Your task to perform on an android device: View the shopping cart on walmart. Search for "beats solo 3" on walmart, select the first entry, and add it to the cart. Image 0: 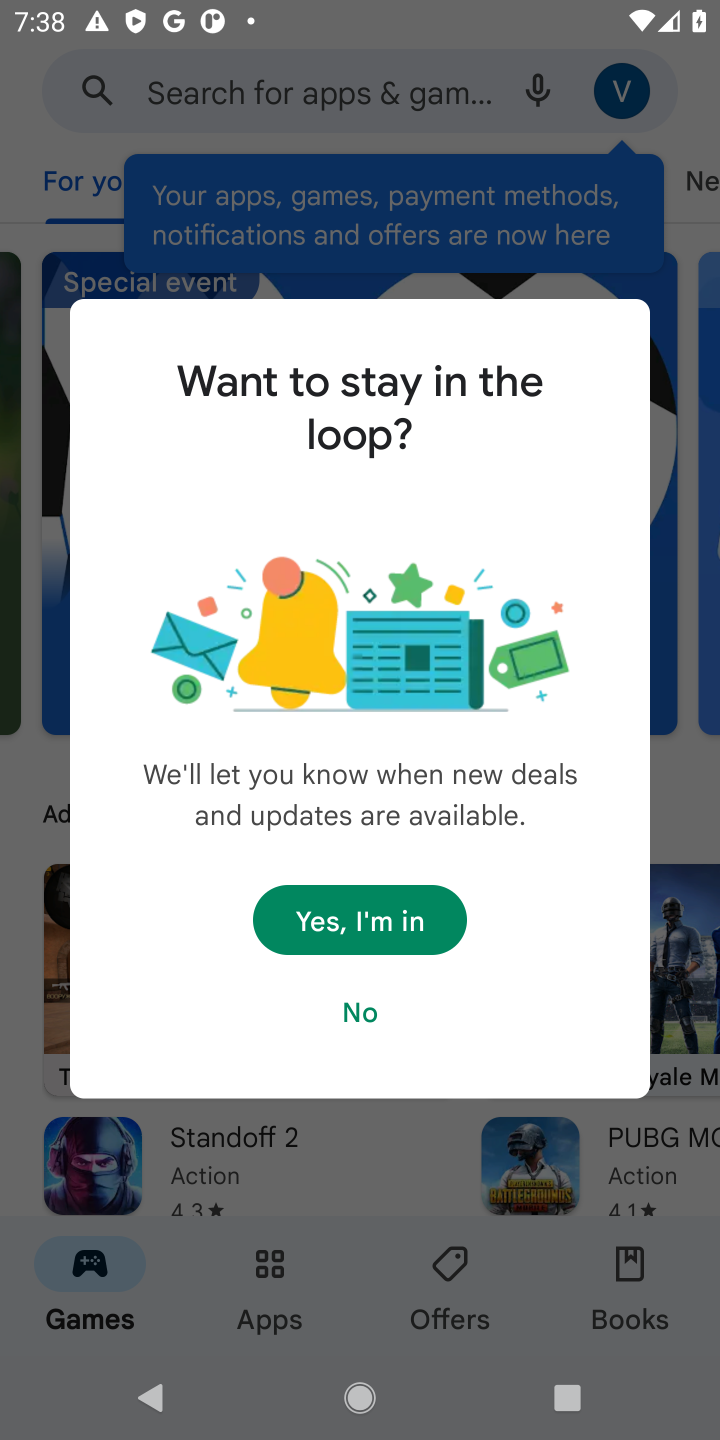
Step 0: press home button
Your task to perform on an android device: View the shopping cart on walmart. Search for "beats solo 3" on walmart, select the first entry, and add it to the cart. Image 1: 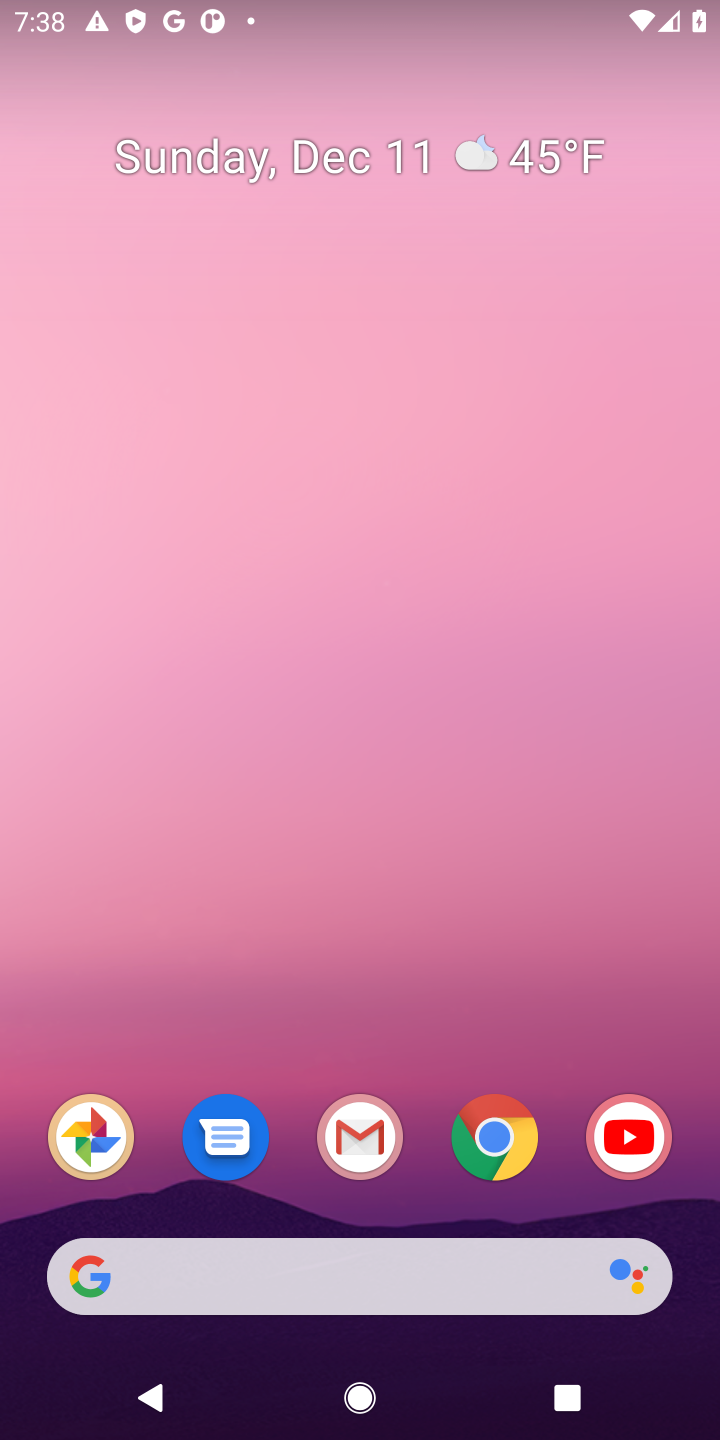
Step 1: click (488, 1136)
Your task to perform on an android device: View the shopping cart on walmart. Search for "beats solo 3" on walmart, select the first entry, and add it to the cart. Image 2: 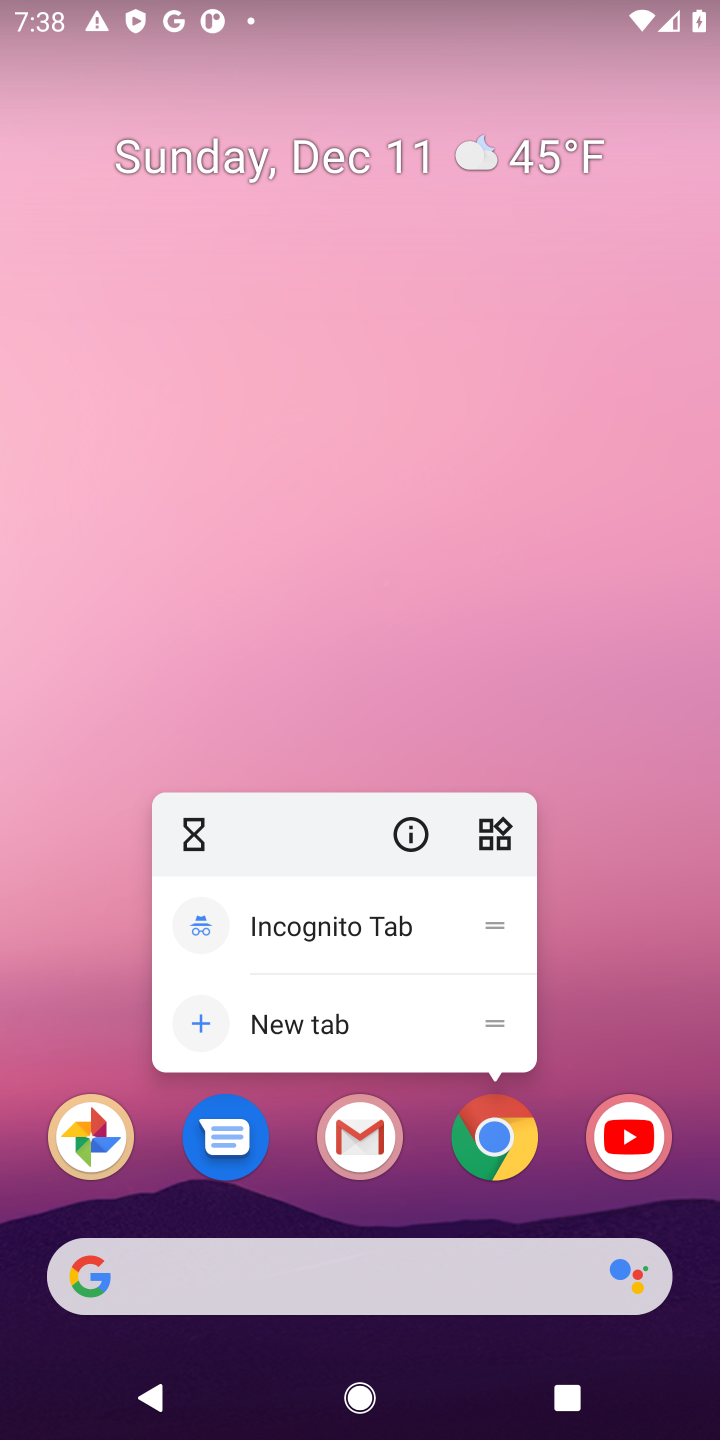
Step 2: click (488, 1136)
Your task to perform on an android device: View the shopping cart on walmart. Search for "beats solo 3" on walmart, select the first entry, and add it to the cart. Image 3: 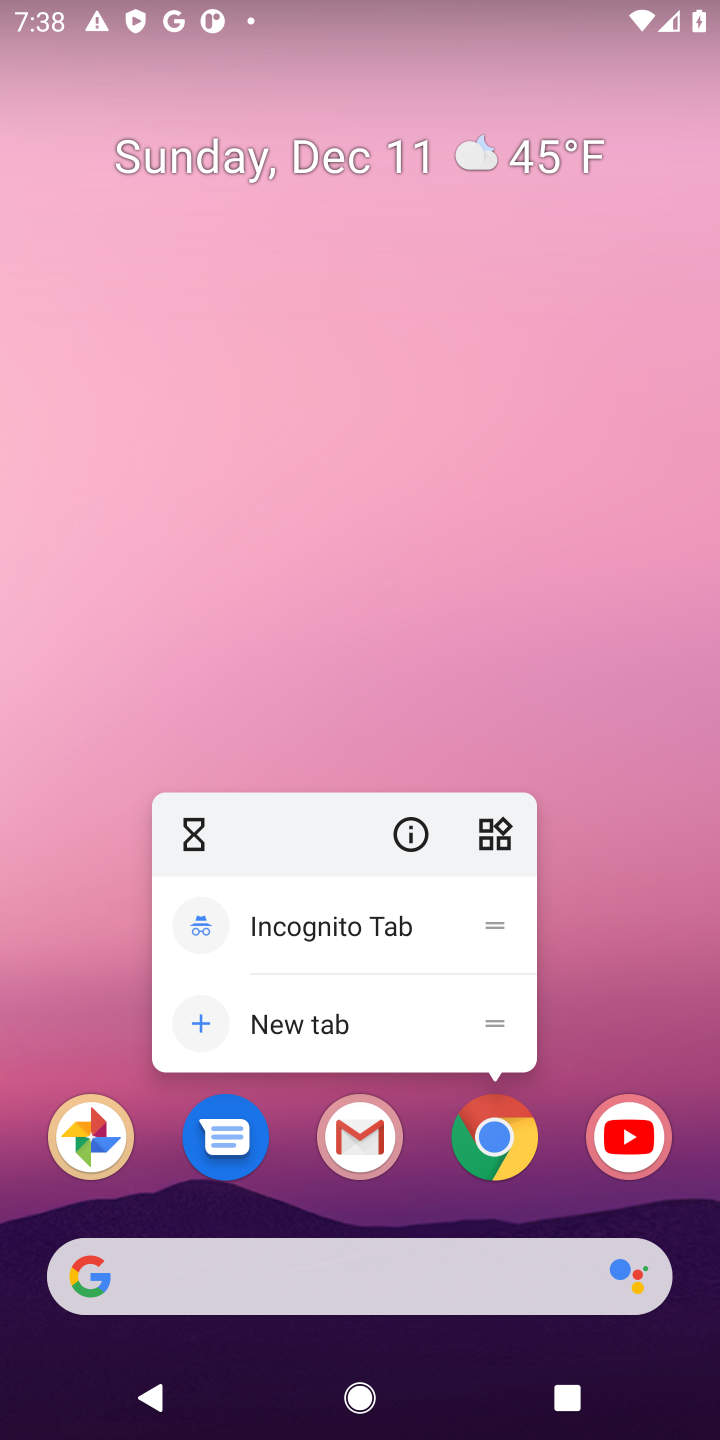
Step 3: click (501, 1137)
Your task to perform on an android device: View the shopping cart on walmart. Search for "beats solo 3" on walmart, select the first entry, and add it to the cart. Image 4: 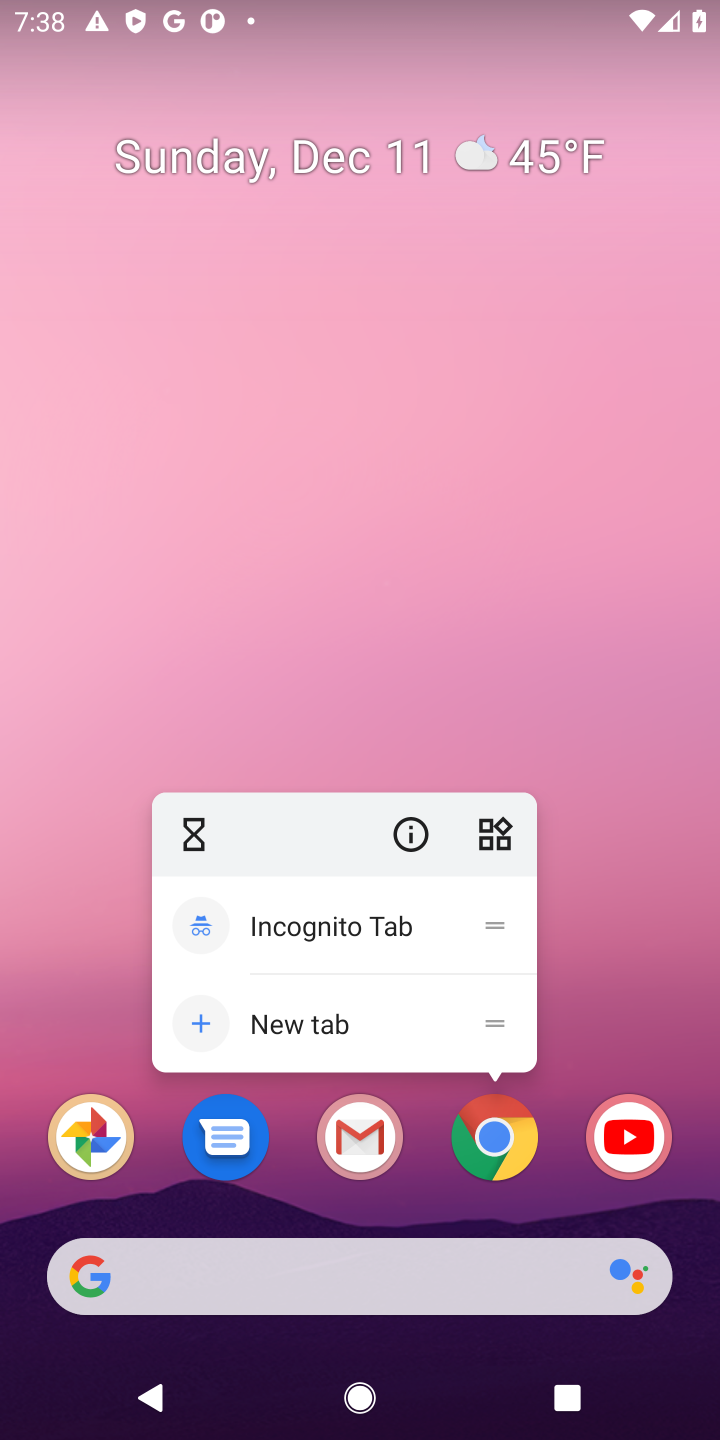
Step 4: click (501, 1137)
Your task to perform on an android device: View the shopping cart on walmart. Search for "beats solo 3" on walmart, select the first entry, and add it to the cart. Image 5: 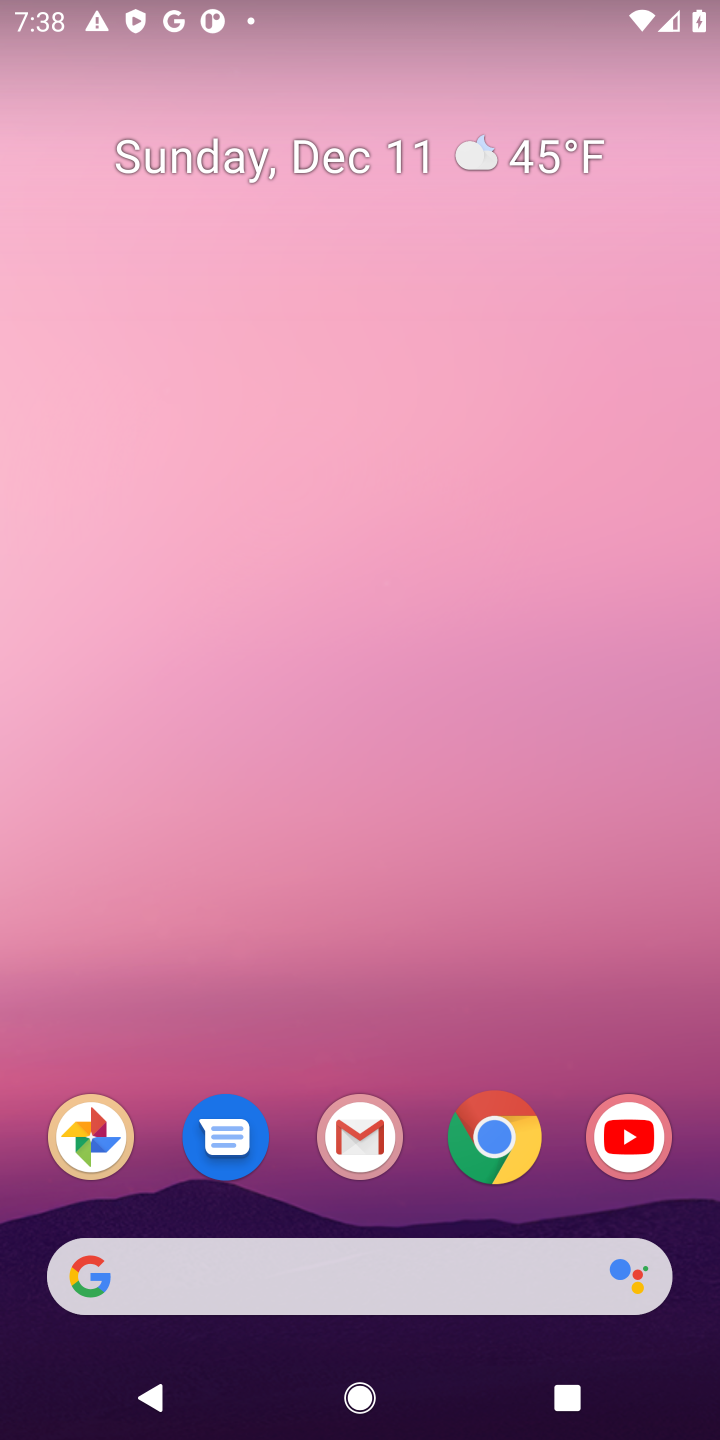
Step 5: click (501, 1137)
Your task to perform on an android device: View the shopping cart on walmart. Search for "beats solo 3" on walmart, select the first entry, and add it to the cart. Image 6: 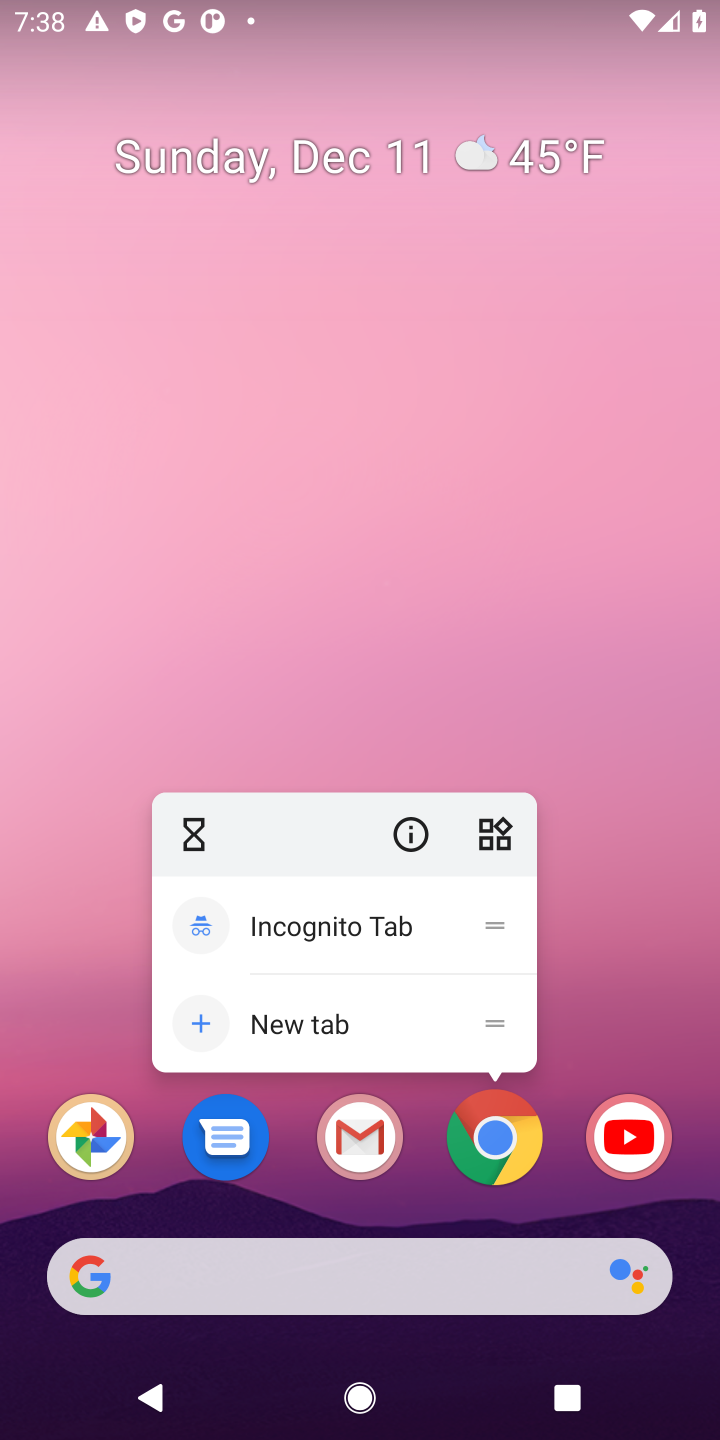
Step 6: click (501, 1137)
Your task to perform on an android device: View the shopping cart on walmart. Search for "beats solo 3" on walmart, select the first entry, and add it to the cart. Image 7: 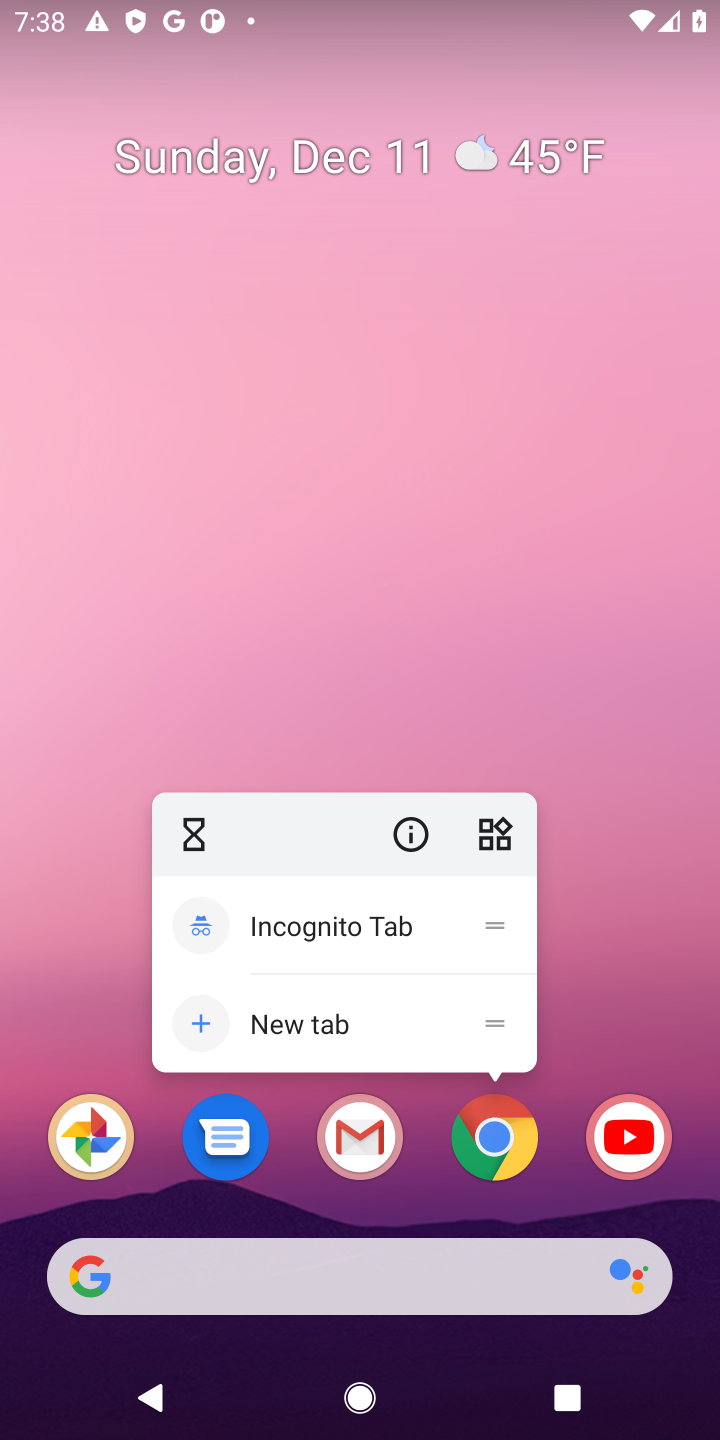
Step 7: click (370, 1038)
Your task to perform on an android device: View the shopping cart on walmart. Search for "beats solo 3" on walmart, select the first entry, and add it to the cart. Image 8: 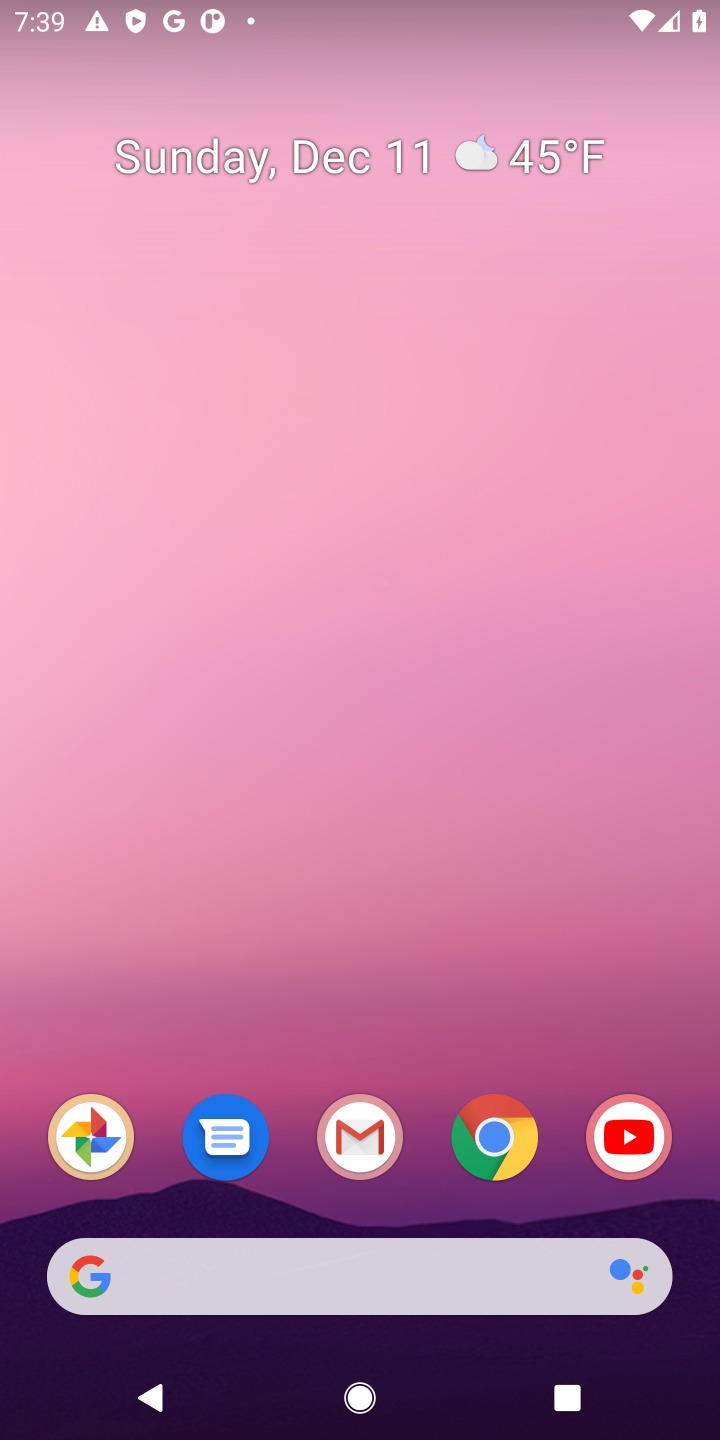
Step 8: click (475, 1108)
Your task to perform on an android device: View the shopping cart on walmart. Search for "beats solo 3" on walmart, select the first entry, and add it to the cart. Image 9: 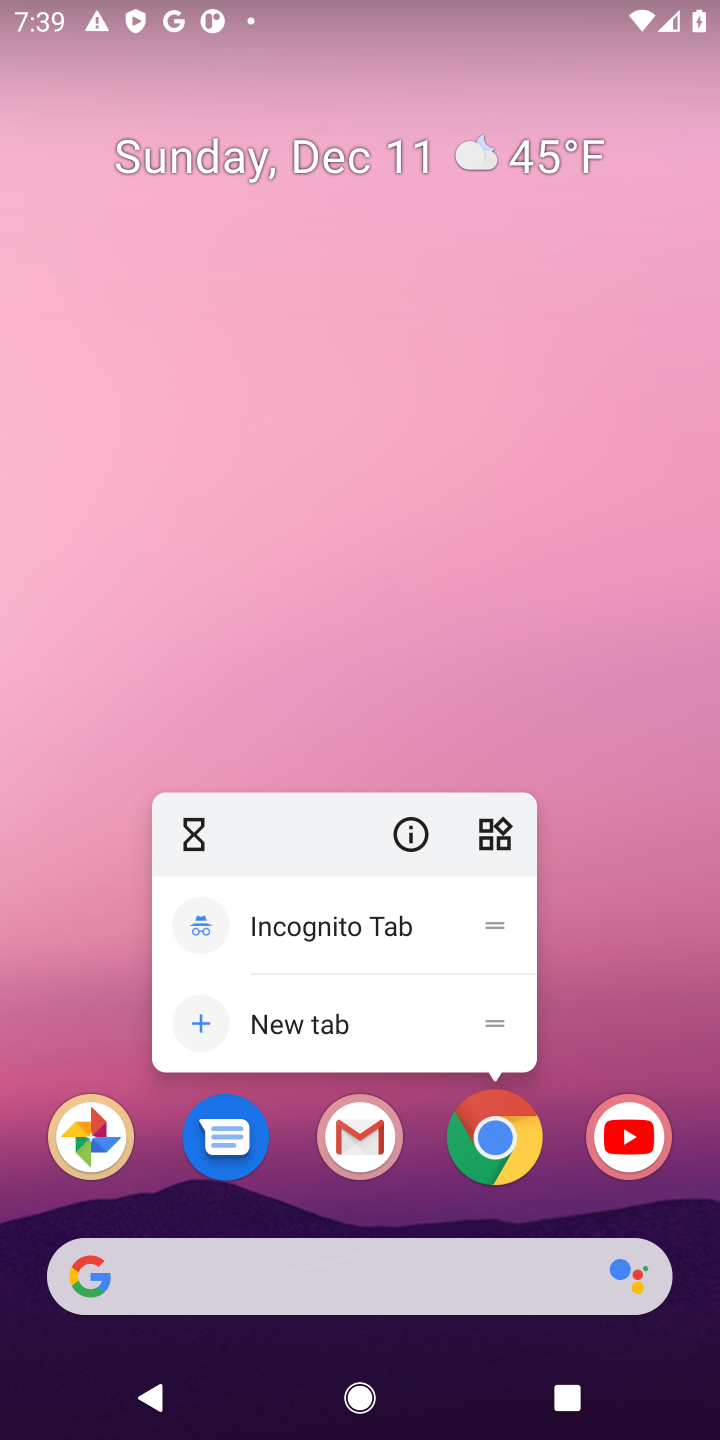
Step 9: click (313, 1017)
Your task to perform on an android device: View the shopping cart on walmart. Search for "beats solo 3" on walmart, select the first entry, and add it to the cart. Image 10: 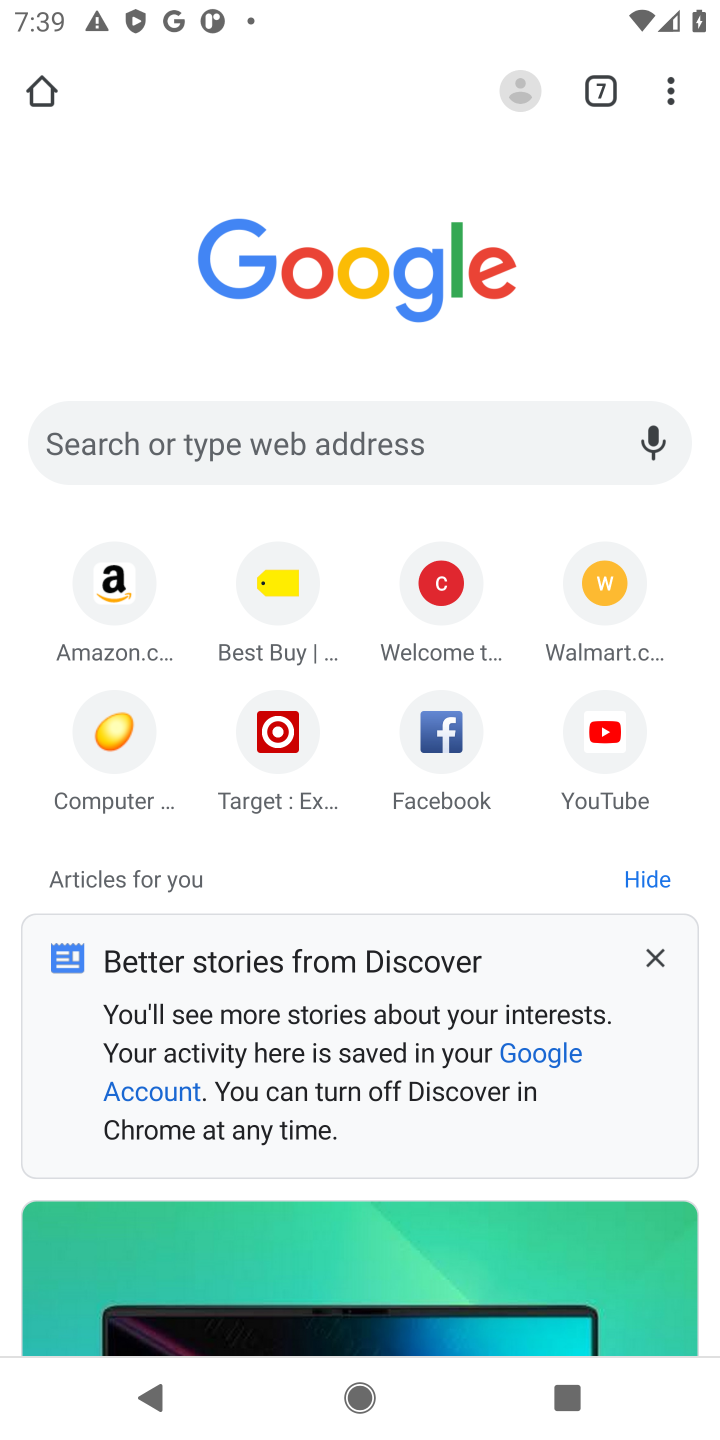
Step 10: click (502, 1107)
Your task to perform on an android device: View the shopping cart on walmart. Search for "beats solo 3" on walmart, select the first entry, and add it to the cart. Image 11: 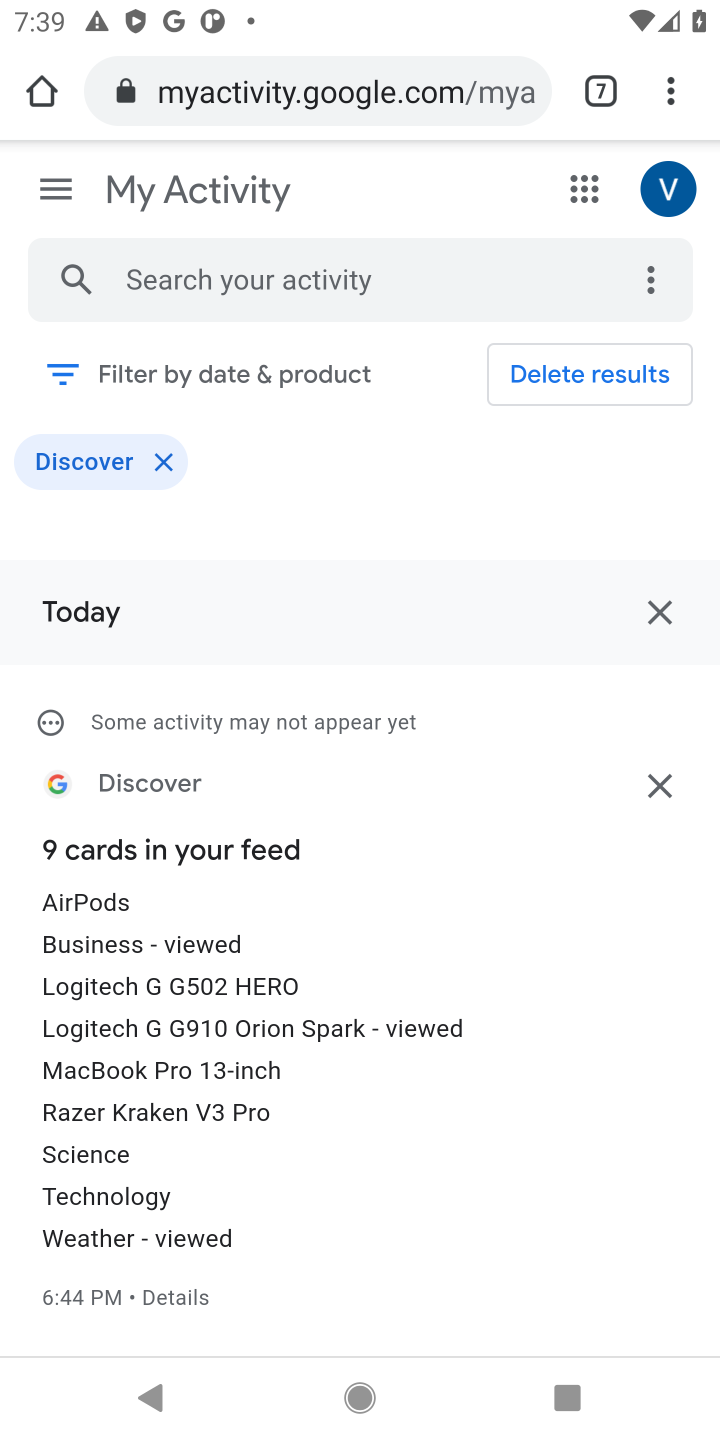
Step 11: press back button
Your task to perform on an android device: View the shopping cart on walmart. Search for "beats solo 3" on walmart, select the first entry, and add it to the cart. Image 12: 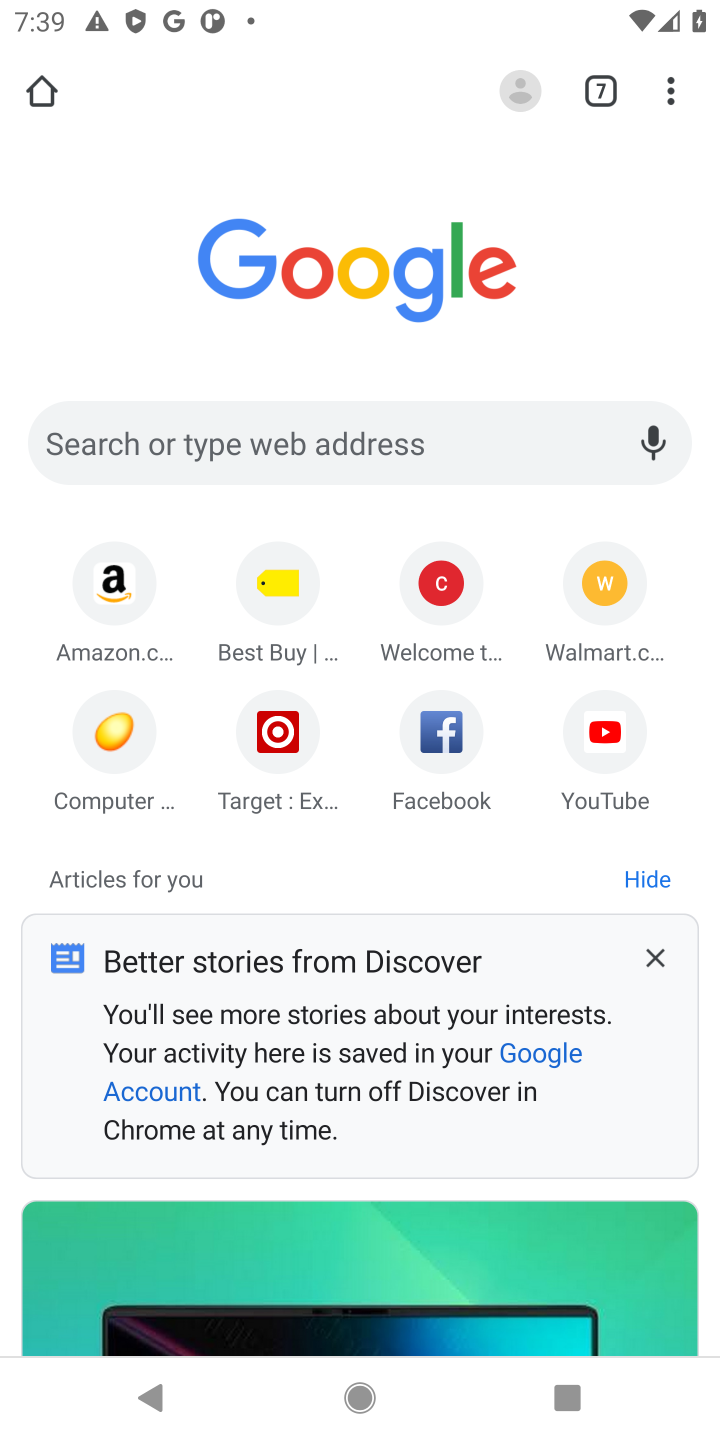
Step 12: click (617, 597)
Your task to perform on an android device: View the shopping cart on walmart. Search for "beats solo 3" on walmart, select the first entry, and add it to the cart. Image 13: 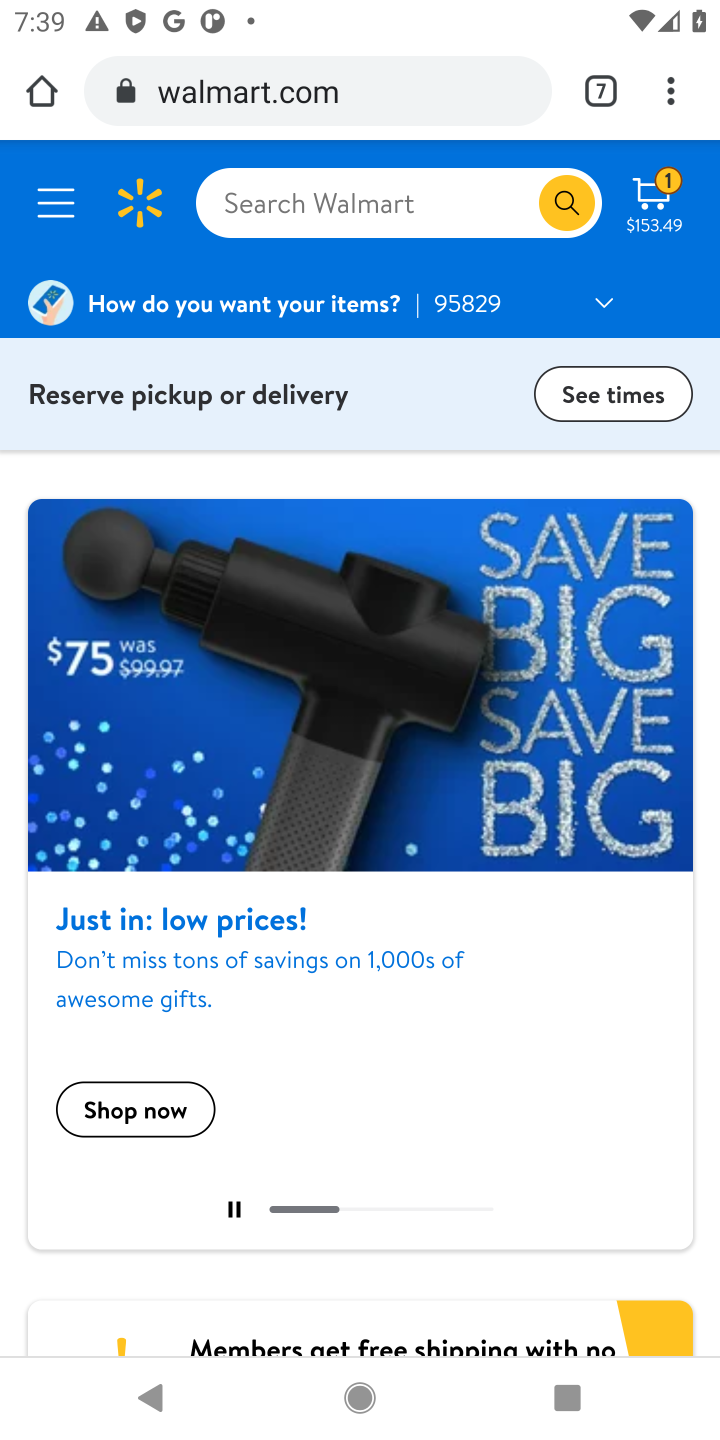
Step 13: click (668, 192)
Your task to perform on an android device: View the shopping cart on walmart. Search for "beats solo 3" on walmart, select the first entry, and add it to the cart. Image 14: 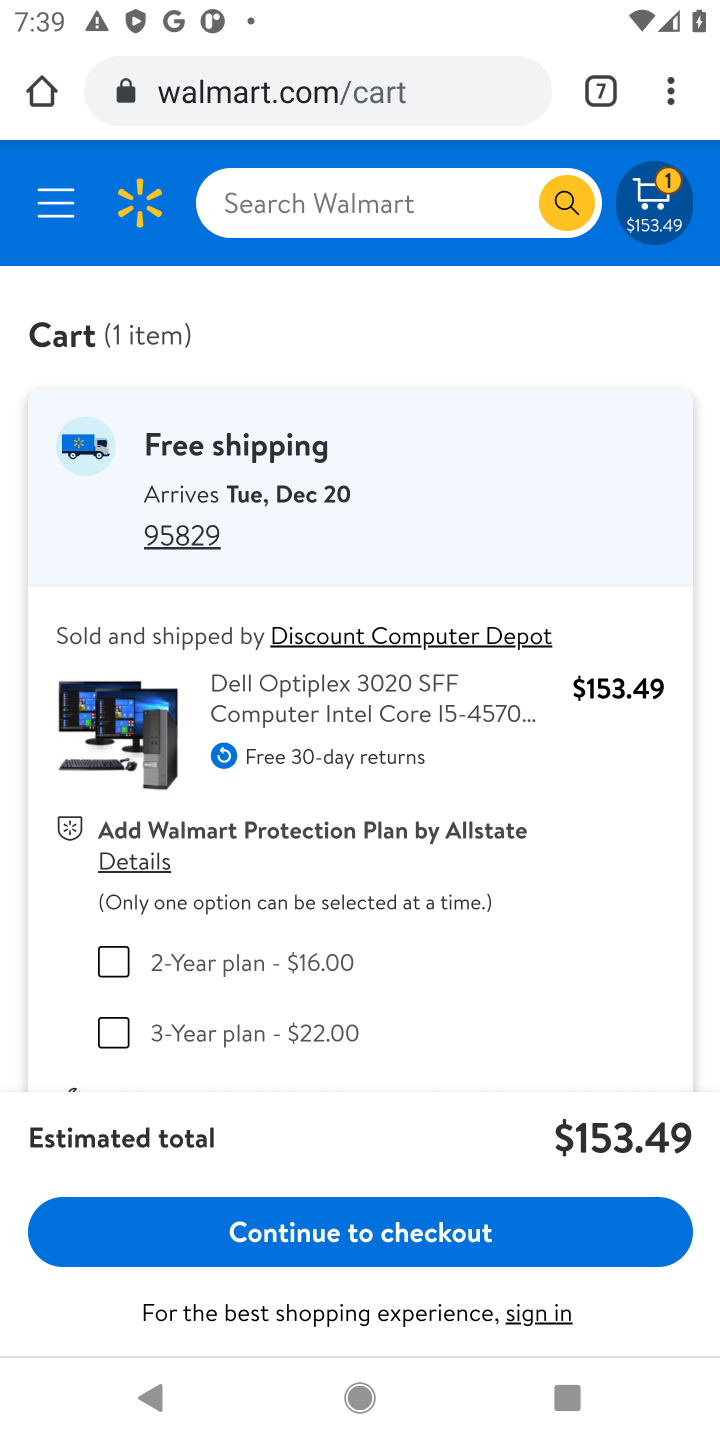
Step 14: click (267, 213)
Your task to perform on an android device: View the shopping cart on walmart. Search for "beats solo 3" on walmart, select the first entry, and add it to the cart. Image 15: 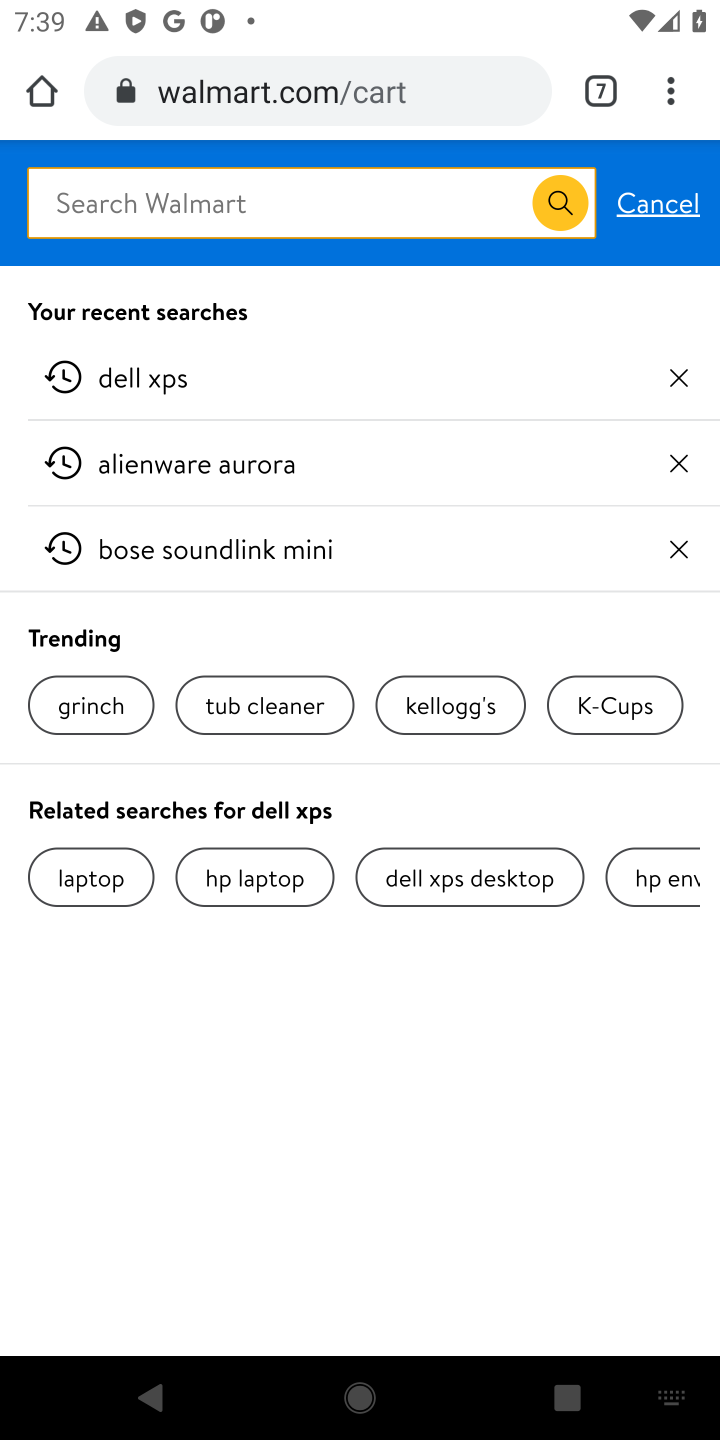
Step 15: type "beats solo 3"
Your task to perform on an android device: View the shopping cart on walmart. Search for "beats solo 3" on walmart, select the first entry, and add it to the cart. Image 16: 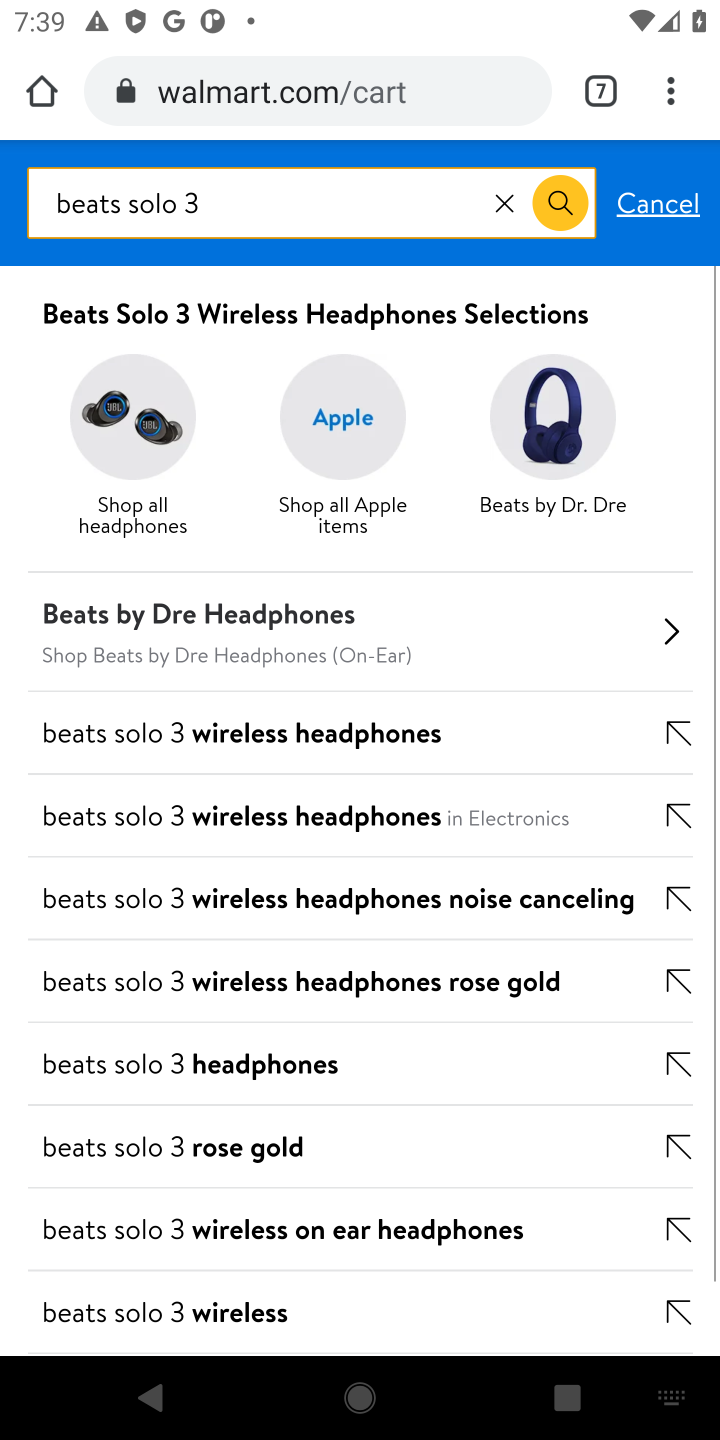
Step 16: click (561, 215)
Your task to perform on an android device: View the shopping cart on walmart. Search for "beats solo 3" on walmart, select the first entry, and add it to the cart. Image 17: 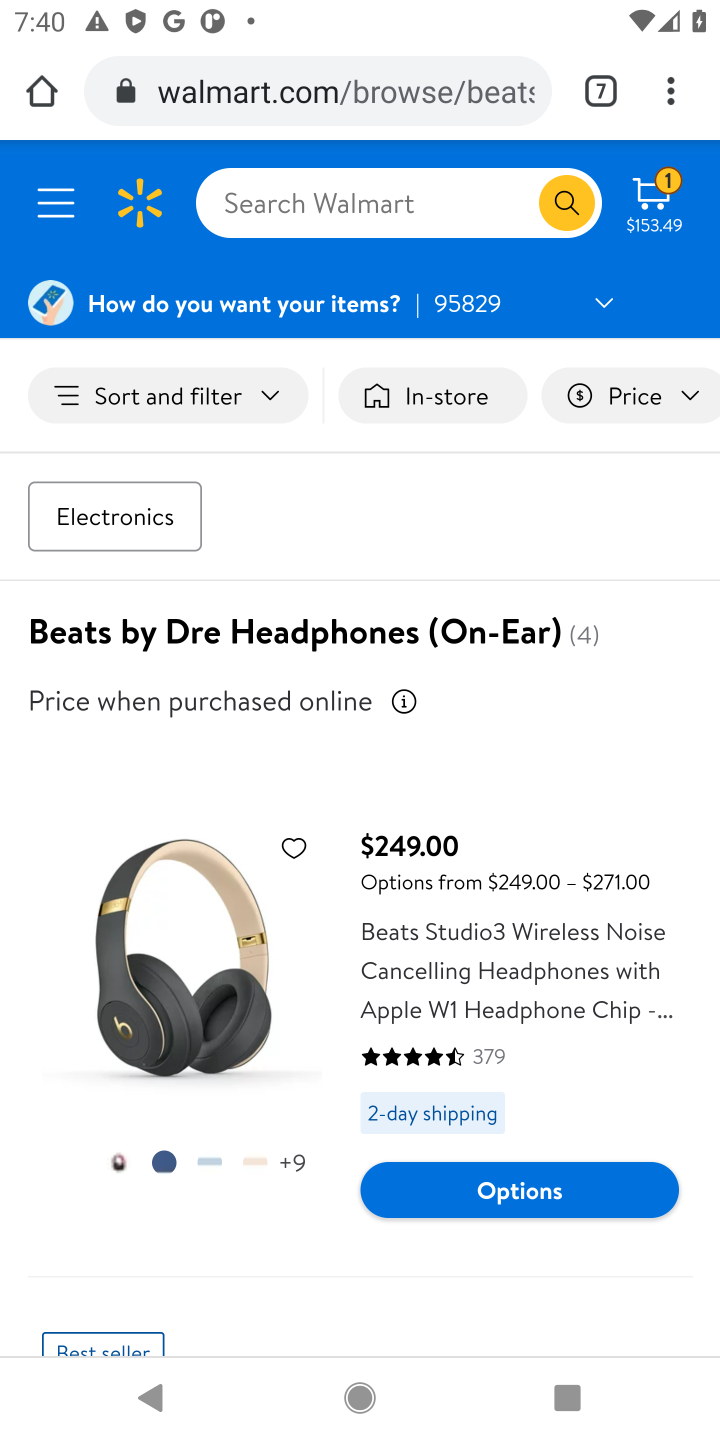
Step 17: drag from (473, 929) to (311, 134)
Your task to perform on an android device: View the shopping cart on walmart. Search for "beats solo 3" on walmart, select the first entry, and add it to the cart. Image 18: 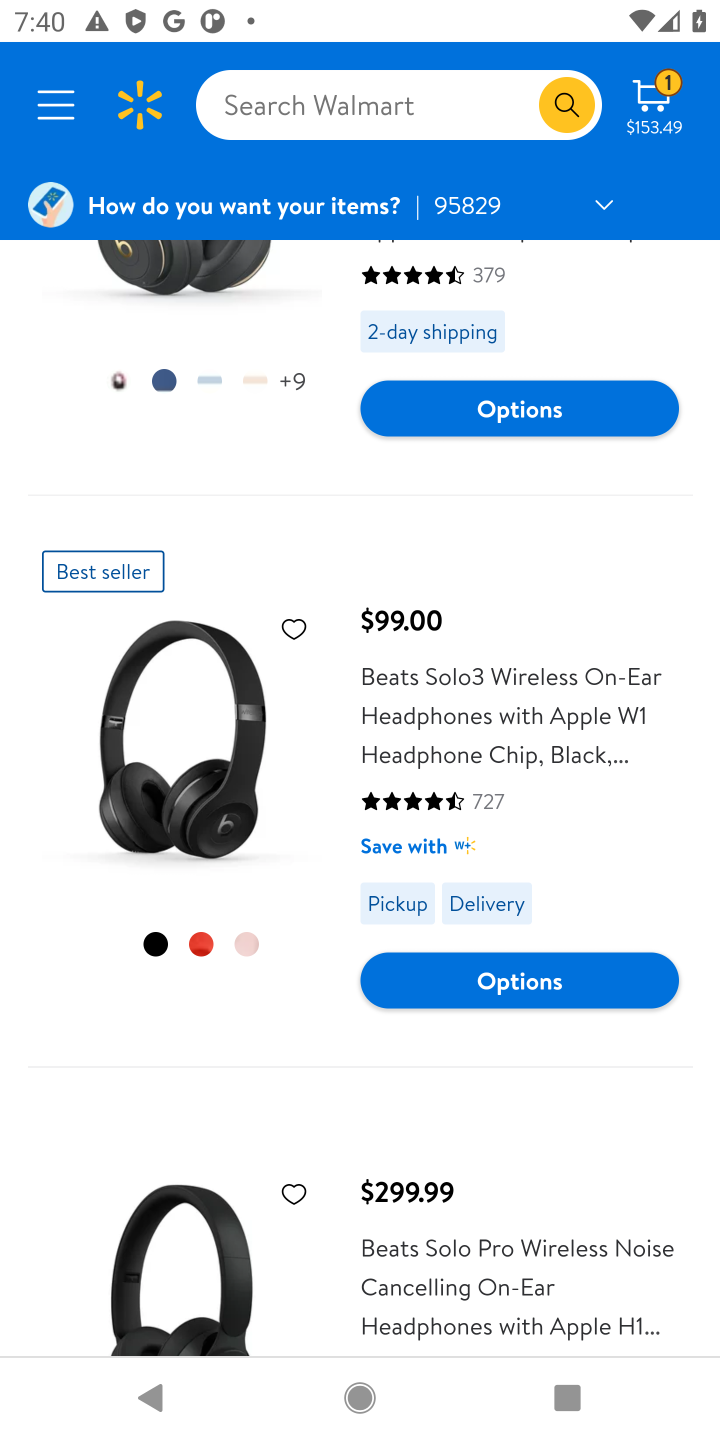
Step 18: click (547, 984)
Your task to perform on an android device: View the shopping cart on walmart. Search for "beats solo 3" on walmart, select the first entry, and add it to the cart. Image 19: 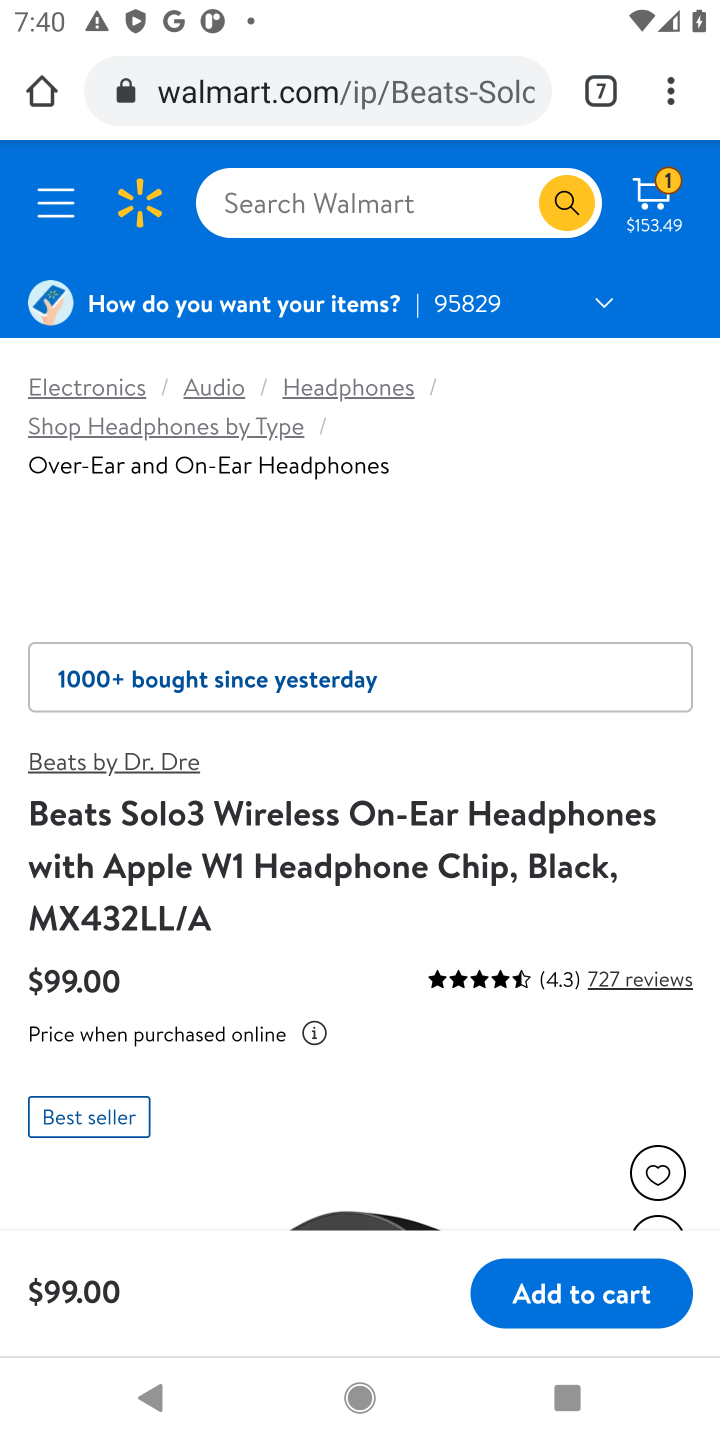
Step 19: click (604, 1294)
Your task to perform on an android device: View the shopping cart on walmart. Search for "beats solo 3" on walmart, select the first entry, and add it to the cart. Image 20: 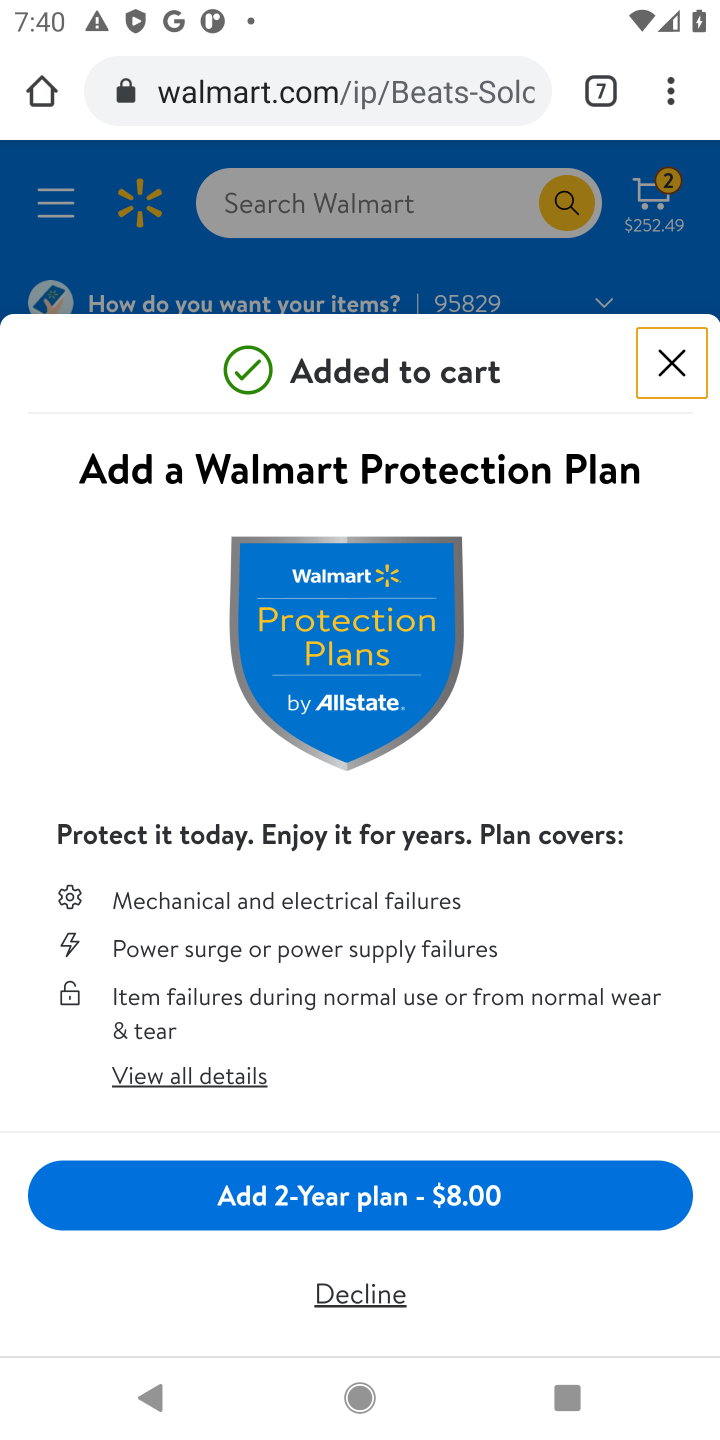
Step 20: task complete